Your task to perform on an android device: open a bookmark in the chrome app Image 0: 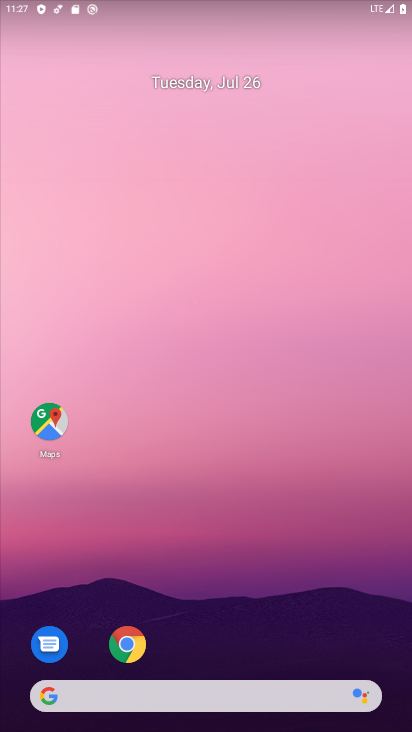
Step 0: drag from (257, 636) to (255, 89)
Your task to perform on an android device: open a bookmark in the chrome app Image 1: 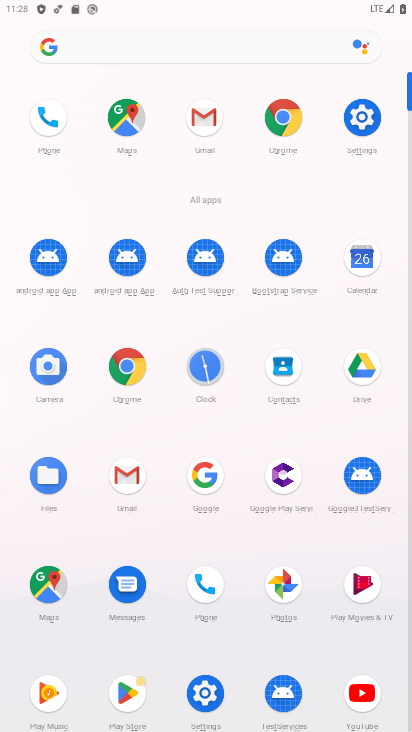
Step 1: click (294, 118)
Your task to perform on an android device: open a bookmark in the chrome app Image 2: 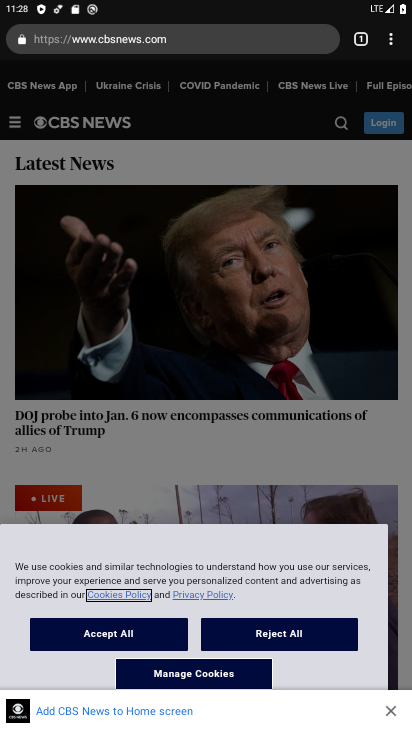
Step 2: click (394, 41)
Your task to perform on an android device: open a bookmark in the chrome app Image 3: 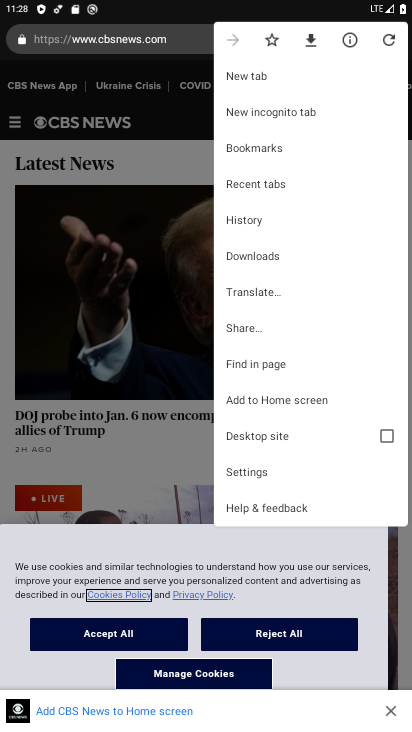
Step 3: click (257, 143)
Your task to perform on an android device: open a bookmark in the chrome app Image 4: 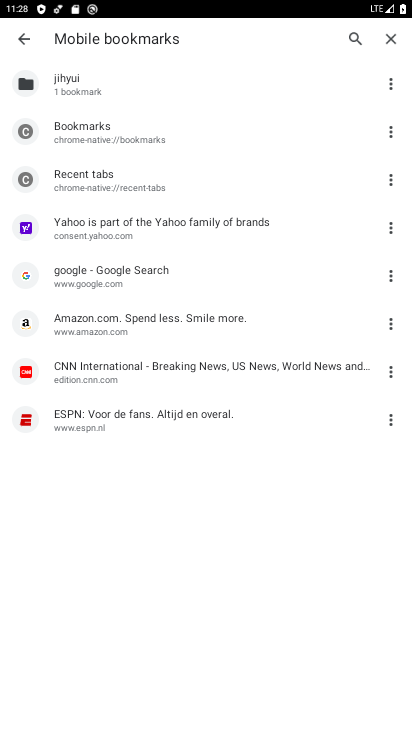
Step 4: click (204, 217)
Your task to perform on an android device: open a bookmark in the chrome app Image 5: 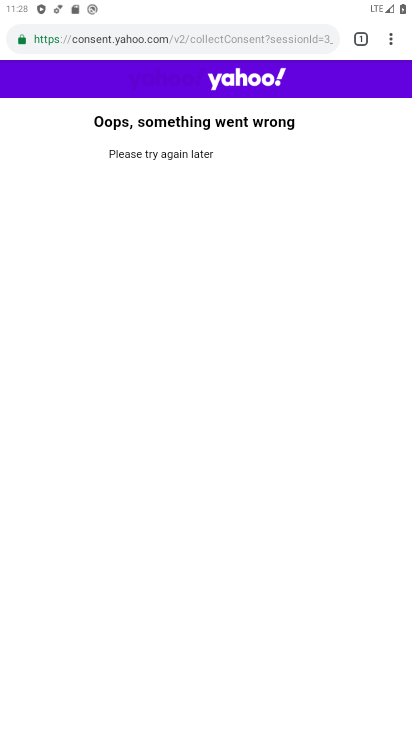
Step 5: task complete